Your task to perform on an android device: Open the stopwatch Image 0: 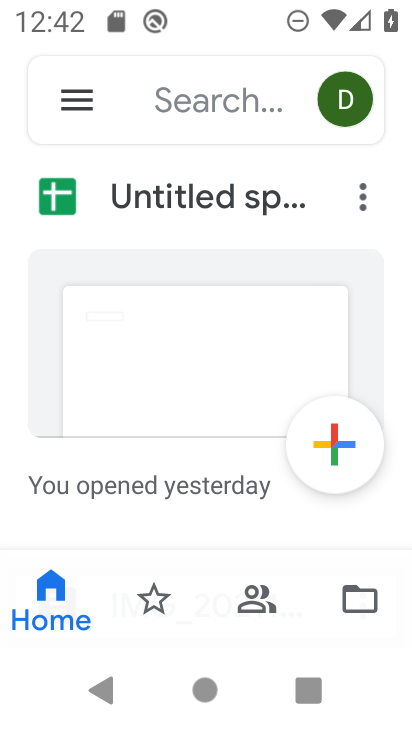
Step 0: press home button
Your task to perform on an android device: Open the stopwatch Image 1: 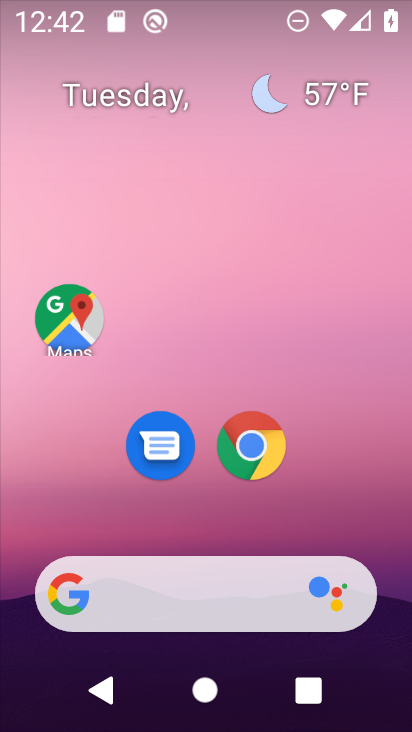
Step 1: drag from (399, 555) to (385, 252)
Your task to perform on an android device: Open the stopwatch Image 2: 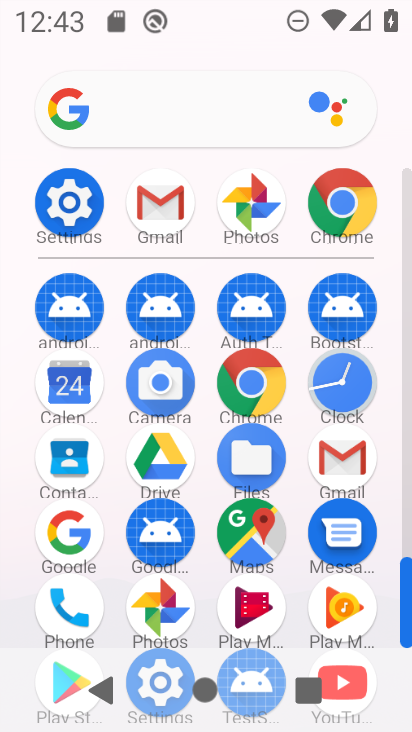
Step 2: click (351, 374)
Your task to perform on an android device: Open the stopwatch Image 3: 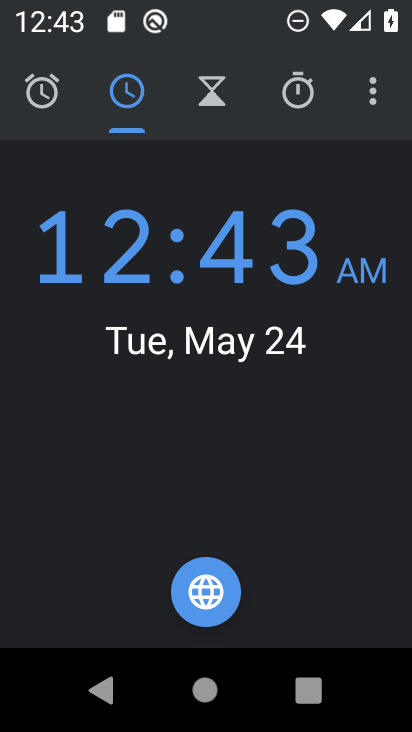
Step 3: click (298, 110)
Your task to perform on an android device: Open the stopwatch Image 4: 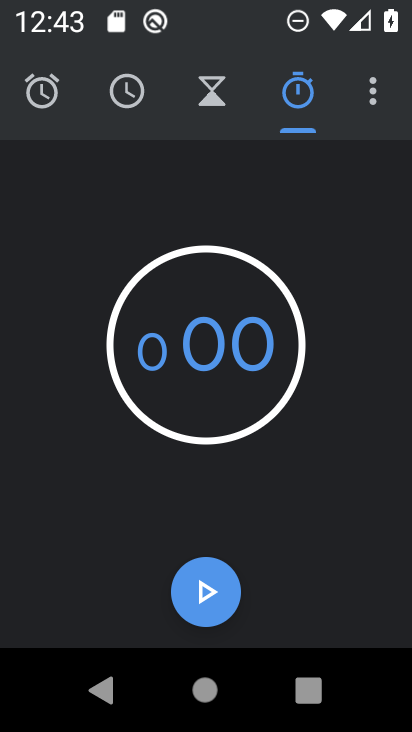
Step 4: task complete